Your task to perform on an android device: delete the emails in spam in the gmail app Image 0: 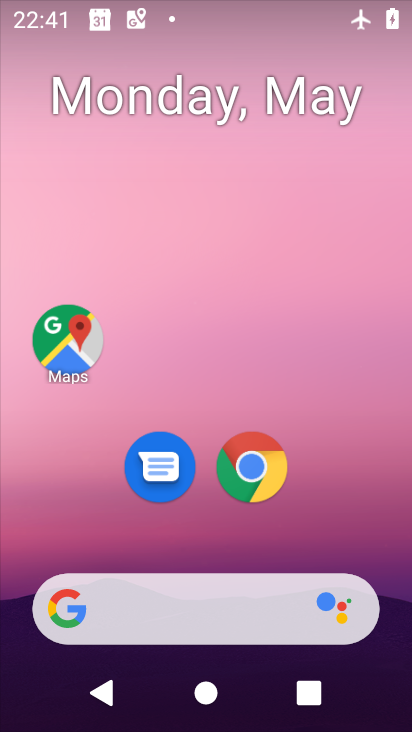
Step 0: drag from (324, 478) to (348, 187)
Your task to perform on an android device: delete the emails in spam in the gmail app Image 1: 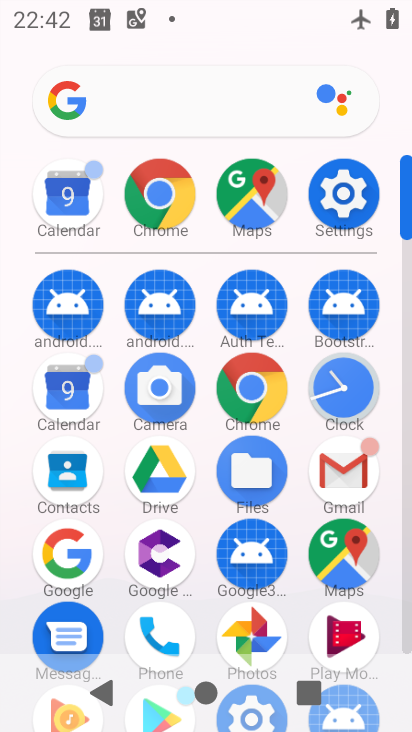
Step 1: click (329, 468)
Your task to perform on an android device: delete the emails in spam in the gmail app Image 2: 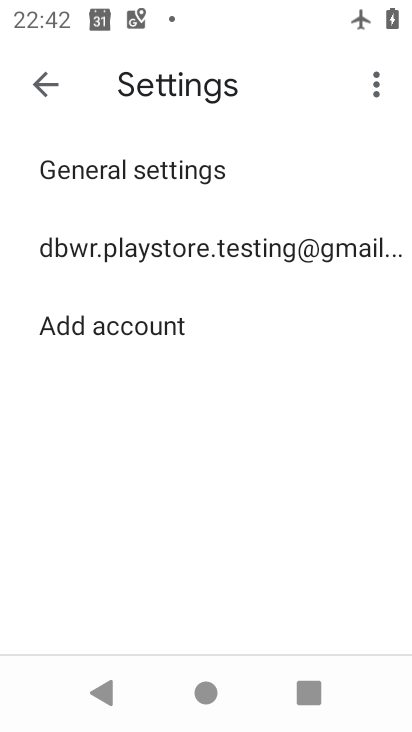
Step 2: click (44, 99)
Your task to perform on an android device: delete the emails in spam in the gmail app Image 3: 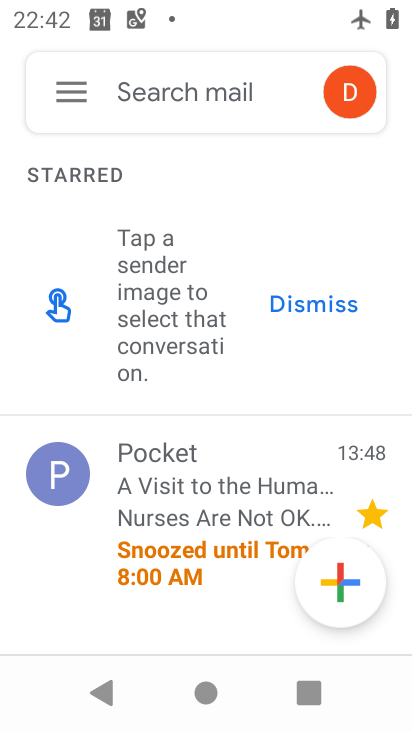
Step 3: click (77, 85)
Your task to perform on an android device: delete the emails in spam in the gmail app Image 4: 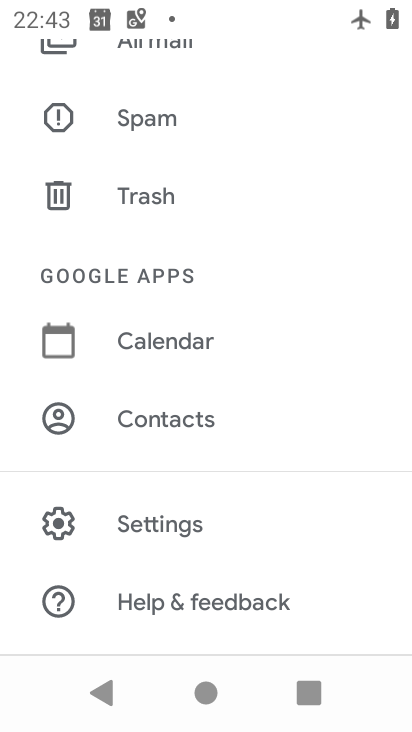
Step 4: click (161, 103)
Your task to perform on an android device: delete the emails in spam in the gmail app Image 5: 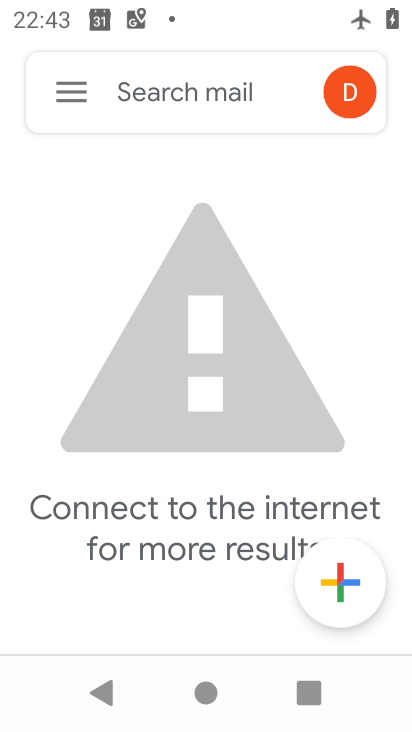
Step 5: task complete